Your task to perform on an android device: install app "Adobe Acrobat Reader" Image 0: 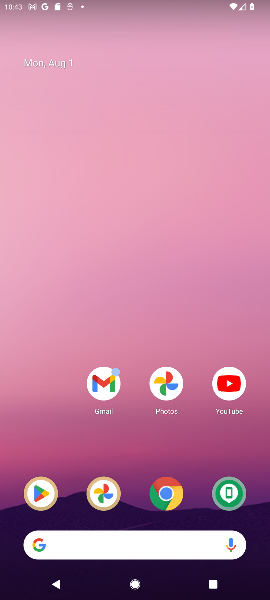
Step 0: drag from (67, 526) to (73, 133)
Your task to perform on an android device: install app "Adobe Acrobat Reader" Image 1: 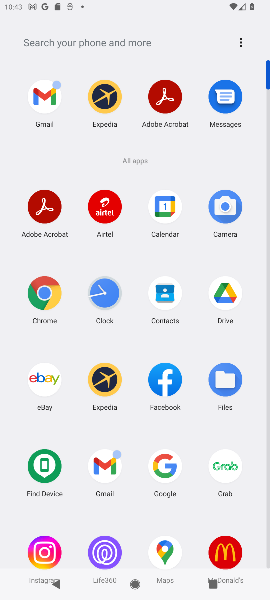
Step 1: click (47, 198)
Your task to perform on an android device: install app "Adobe Acrobat Reader" Image 2: 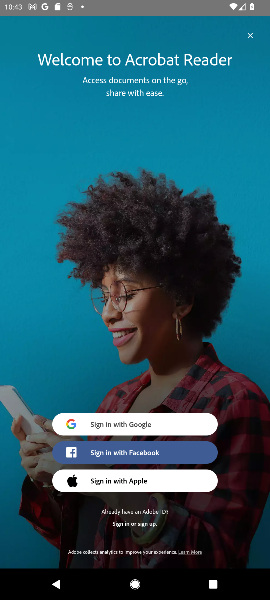
Step 2: task complete